Your task to perform on an android device: Go to network settings Image 0: 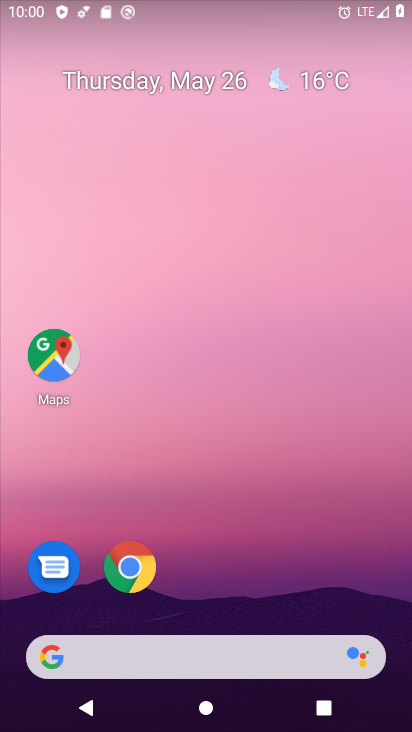
Step 0: drag from (385, 538) to (312, 134)
Your task to perform on an android device: Go to network settings Image 1: 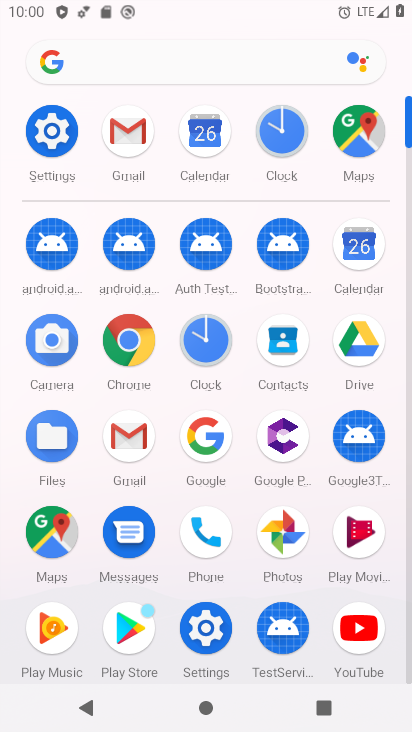
Step 1: click (47, 138)
Your task to perform on an android device: Go to network settings Image 2: 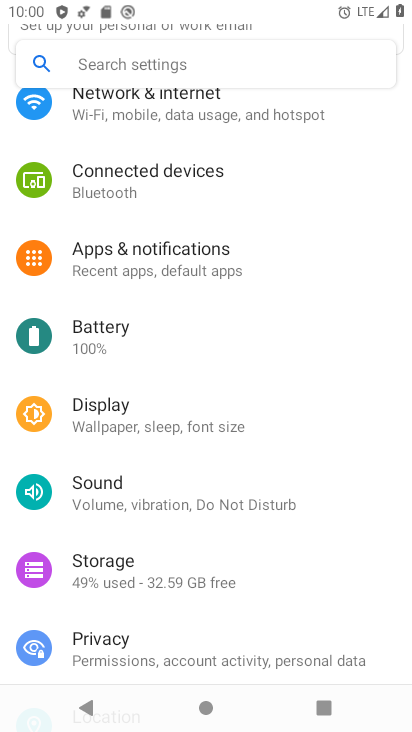
Step 2: click (173, 102)
Your task to perform on an android device: Go to network settings Image 3: 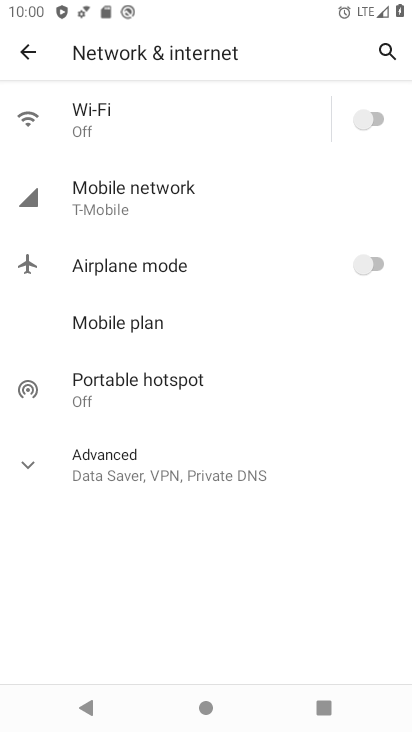
Step 3: click (80, 189)
Your task to perform on an android device: Go to network settings Image 4: 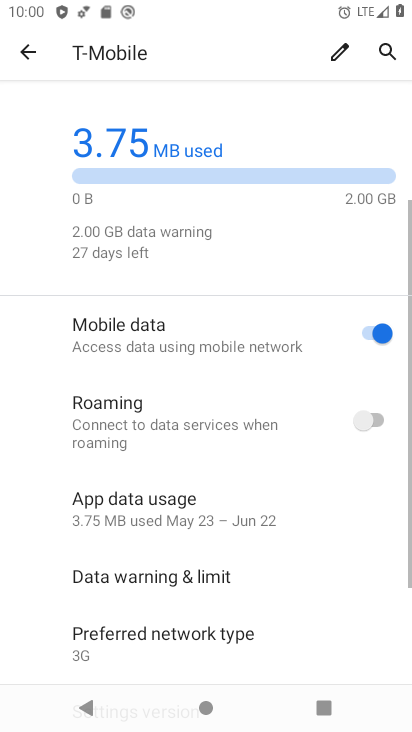
Step 4: drag from (282, 641) to (269, 184)
Your task to perform on an android device: Go to network settings Image 5: 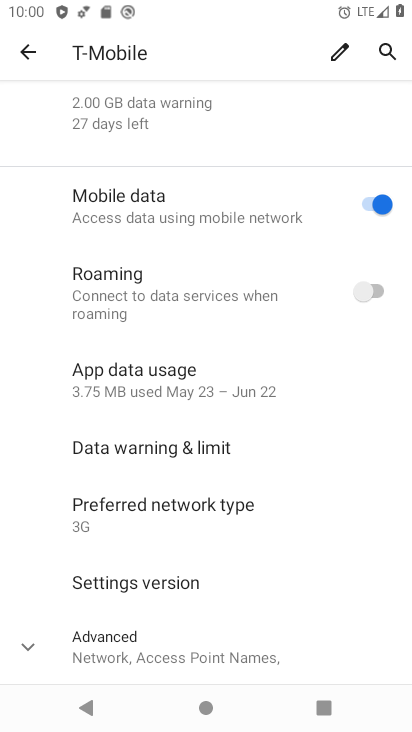
Step 5: click (24, 632)
Your task to perform on an android device: Go to network settings Image 6: 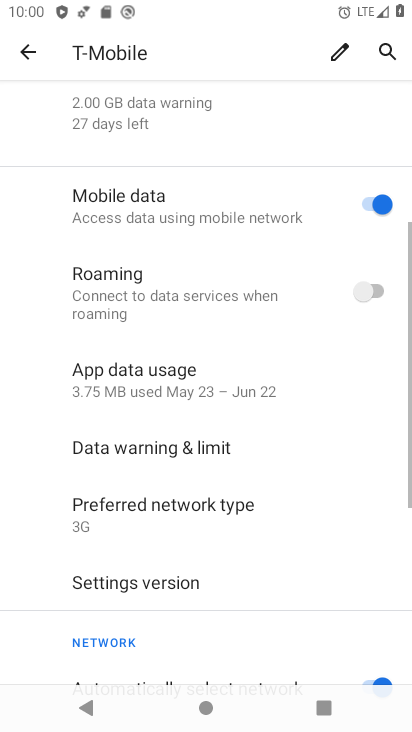
Step 6: task complete